Your task to perform on an android device: Go to privacy settings Image 0: 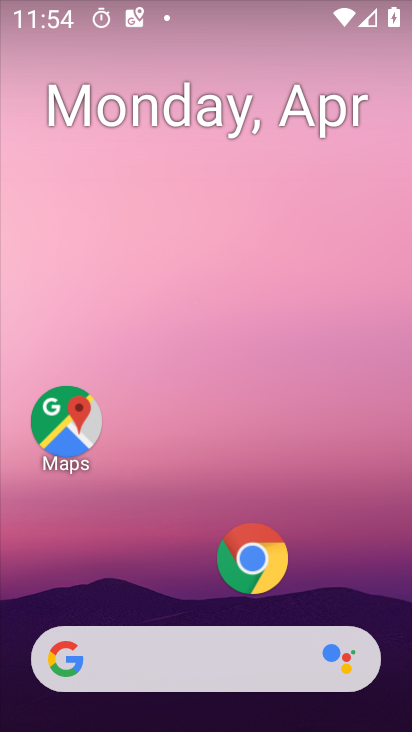
Step 0: drag from (195, 591) to (239, 150)
Your task to perform on an android device: Go to privacy settings Image 1: 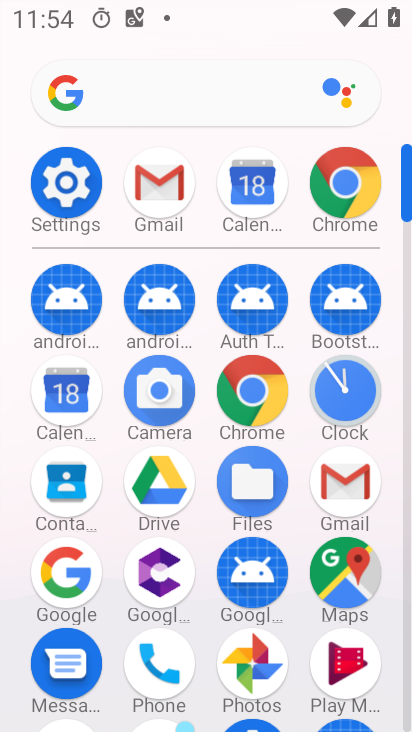
Step 1: drag from (204, 637) to (224, 260)
Your task to perform on an android device: Go to privacy settings Image 2: 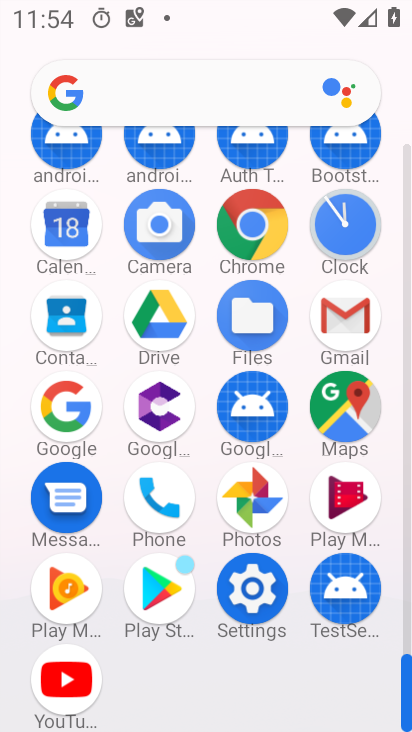
Step 2: click (255, 596)
Your task to perform on an android device: Go to privacy settings Image 3: 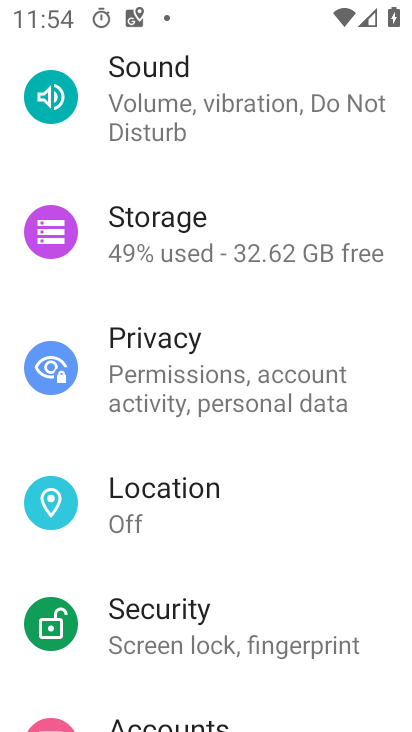
Step 3: click (193, 387)
Your task to perform on an android device: Go to privacy settings Image 4: 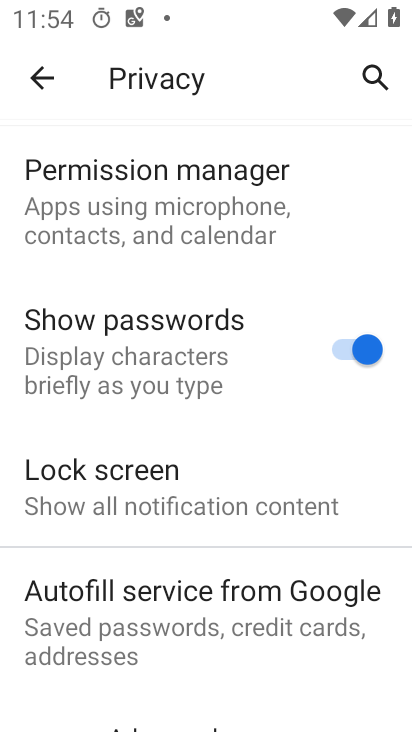
Step 4: task complete